Your task to perform on an android device: empty trash in google photos Image 0: 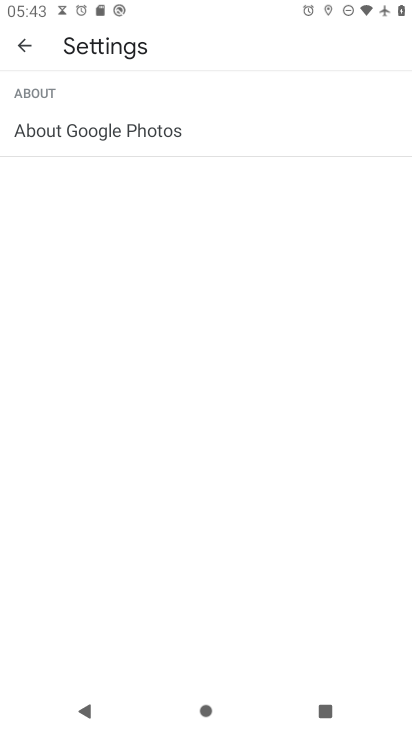
Step 0: press back button
Your task to perform on an android device: empty trash in google photos Image 1: 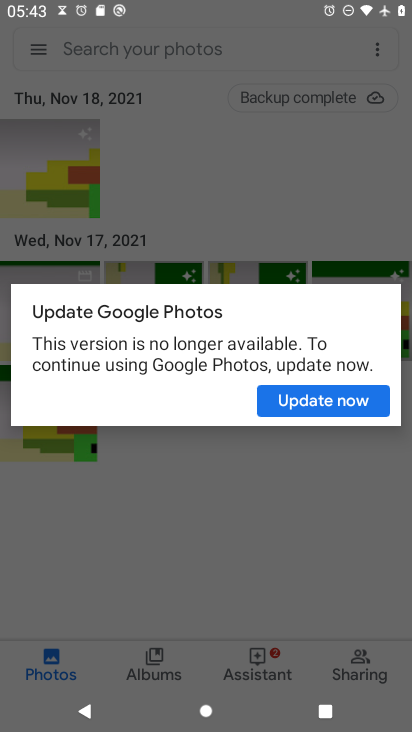
Step 1: click (325, 403)
Your task to perform on an android device: empty trash in google photos Image 2: 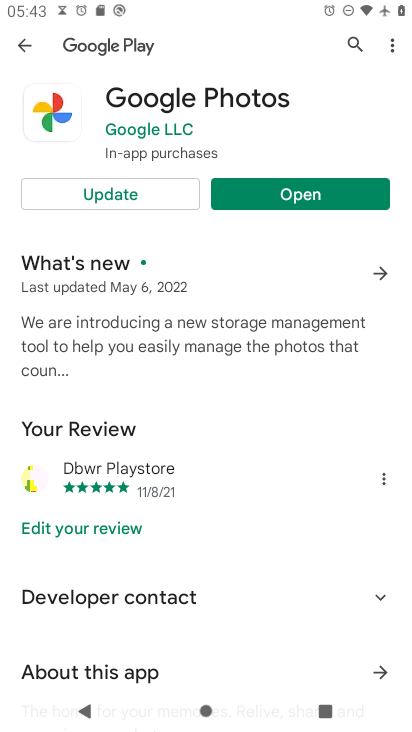
Step 2: click (142, 196)
Your task to perform on an android device: empty trash in google photos Image 3: 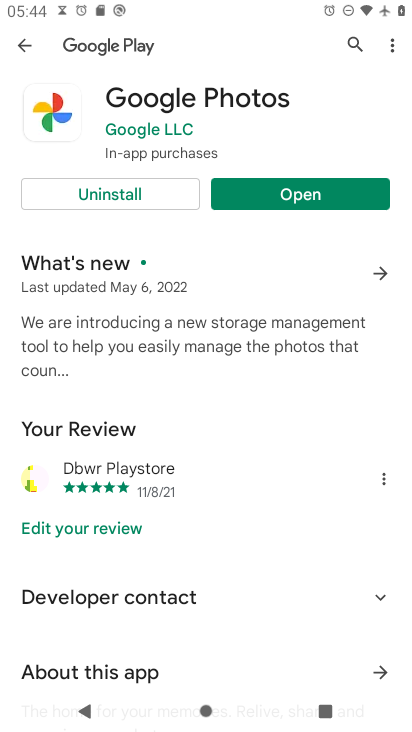
Step 3: click (290, 192)
Your task to perform on an android device: empty trash in google photos Image 4: 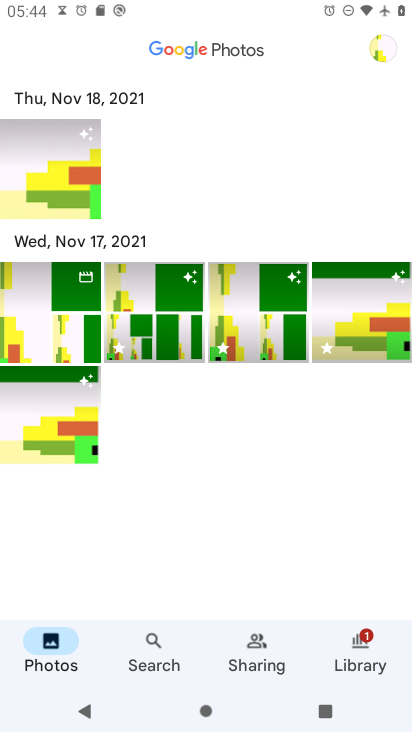
Step 4: click (361, 651)
Your task to perform on an android device: empty trash in google photos Image 5: 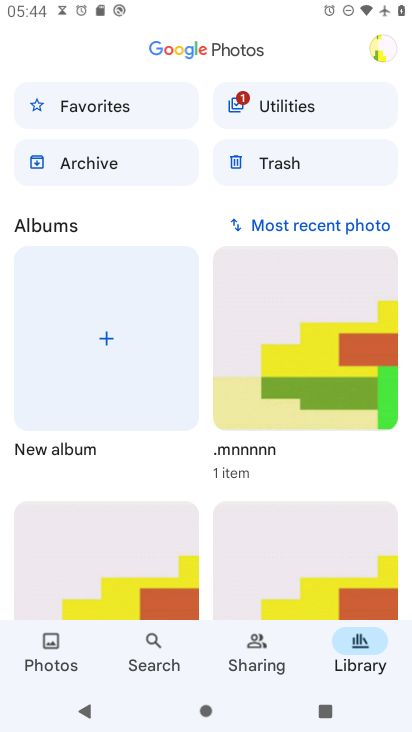
Step 5: click (295, 160)
Your task to perform on an android device: empty trash in google photos Image 6: 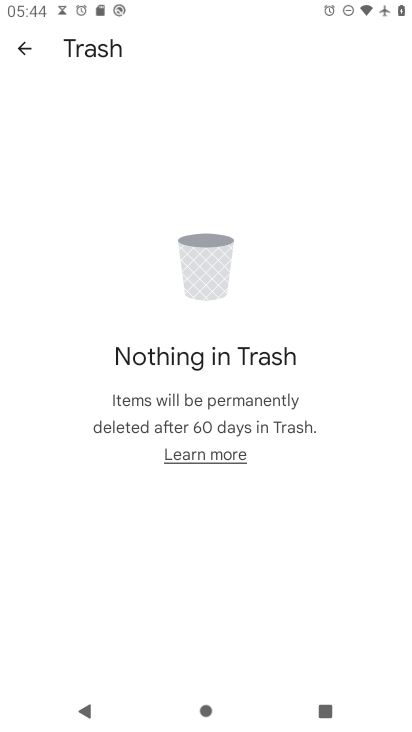
Step 6: task complete